Your task to perform on an android device: stop showing notifications on the lock screen Image 0: 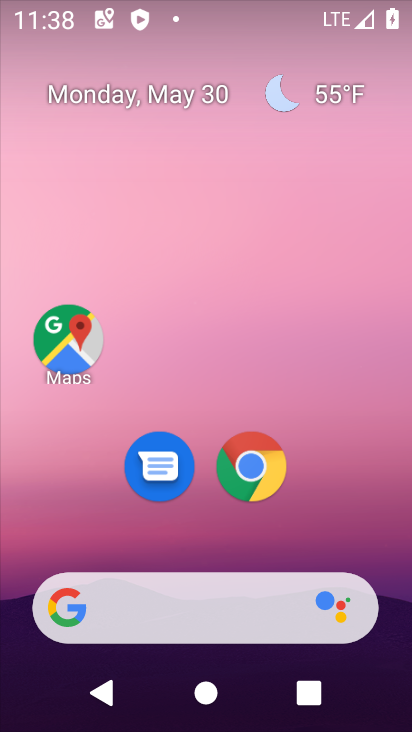
Step 0: press home button
Your task to perform on an android device: stop showing notifications on the lock screen Image 1: 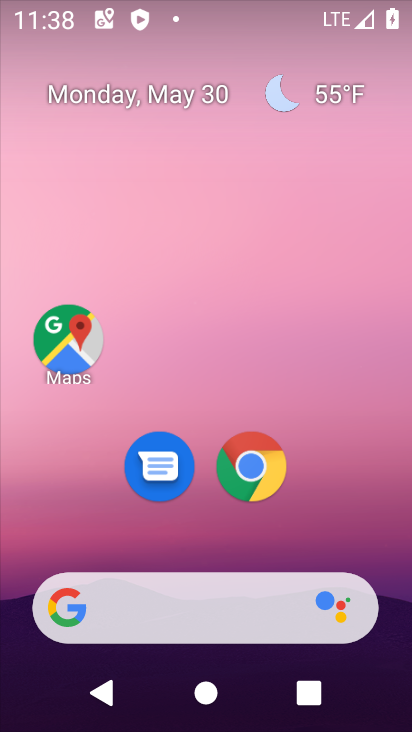
Step 1: drag from (360, 566) to (305, 103)
Your task to perform on an android device: stop showing notifications on the lock screen Image 2: 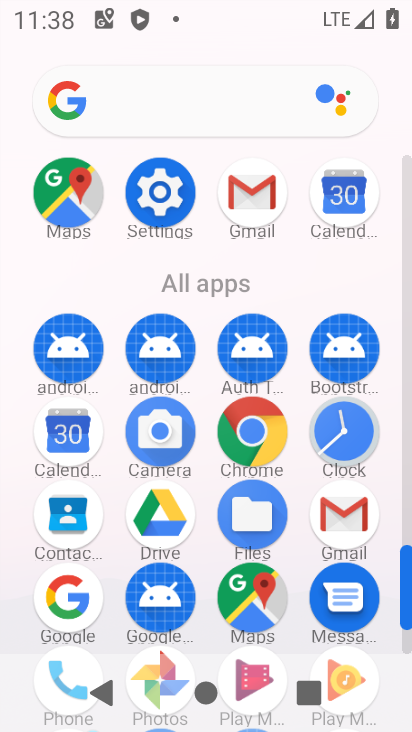
Step 2: click (173, 191)
Your task to perform on an android device: stop showing notifications on the lock screen Image 3: 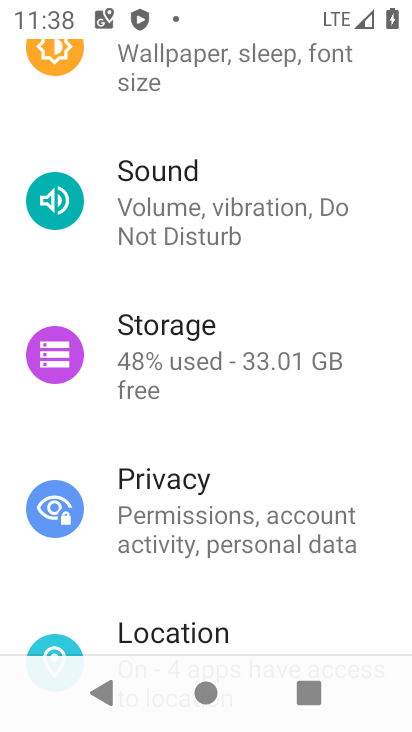
Step 3: drag from (218, 179) to (201, 692)
Your task to perform on an android device: stop showing notifications on the lock screen Image 4: 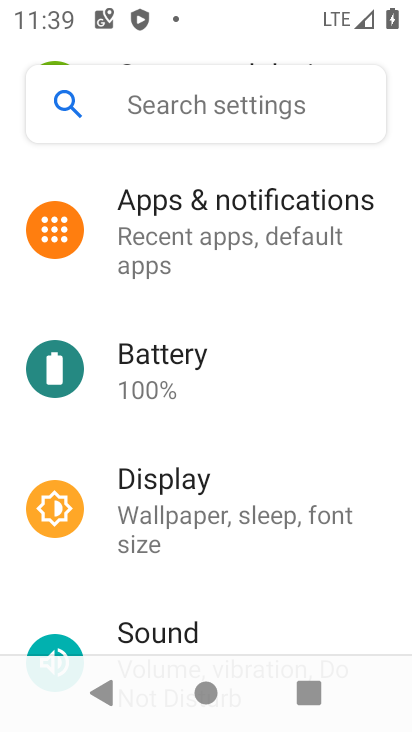
Step 4: click (208, 230)
Your task to perform on an android device: stop showing notifications on the lock screen Image 5: 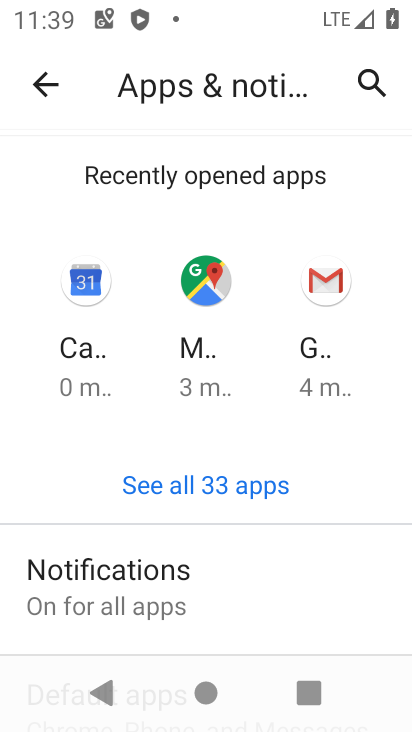
Step 5: drag from (189, 625) to (192, 353)
Your task to perform on an android device: stop showing notifications on the lock screen Image 6: 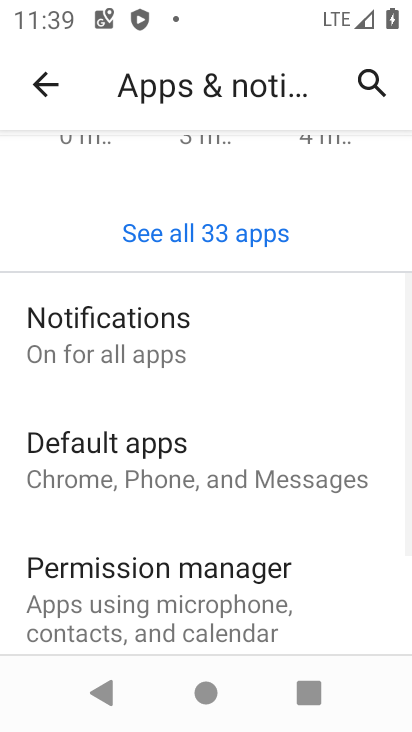
Step 6: click (158, 278)
Your task to perform on an android device: stop showing notifications on the lock screen Image 7: 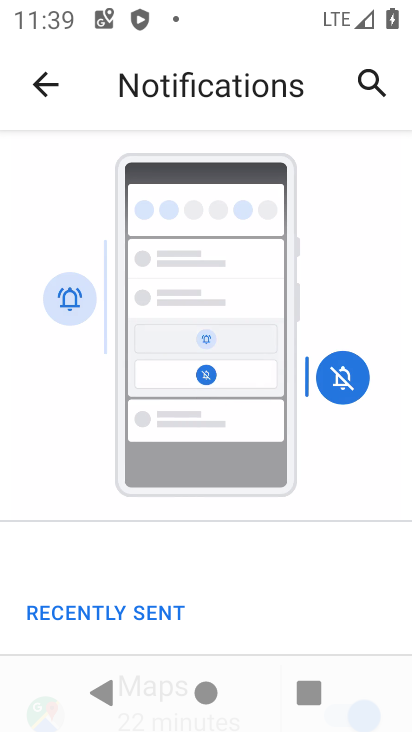
Step 7: drag from (174, 626) to (178, 288)
Your task to perform on an android device: stop showing notifications on the lock screen Image 8: 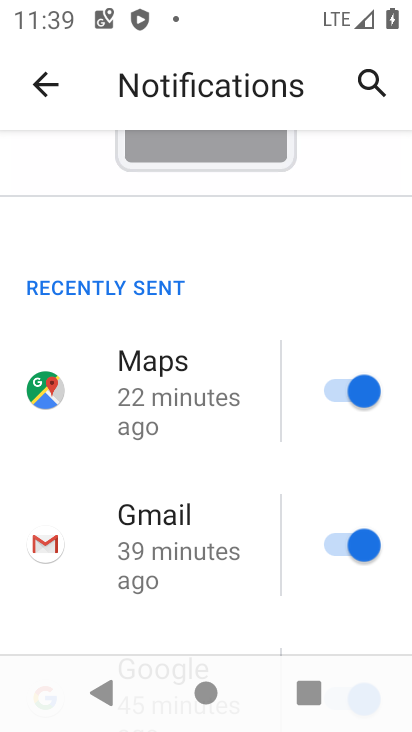
Step 8: drag from (194, 660) to (231, 230)
Your task to perform on an android device: stop showing notifications on the lock screen Image 9: 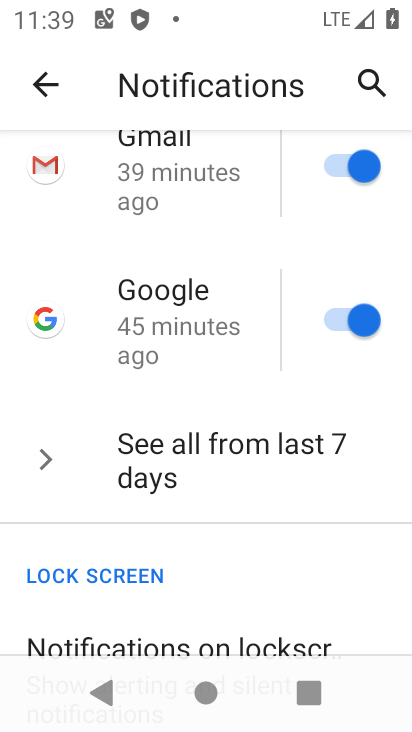
Step 9: drag from (216, 605) to (190, 365)
Your task to perform on an android device: stop showing notifications on the lock screen Image 10: 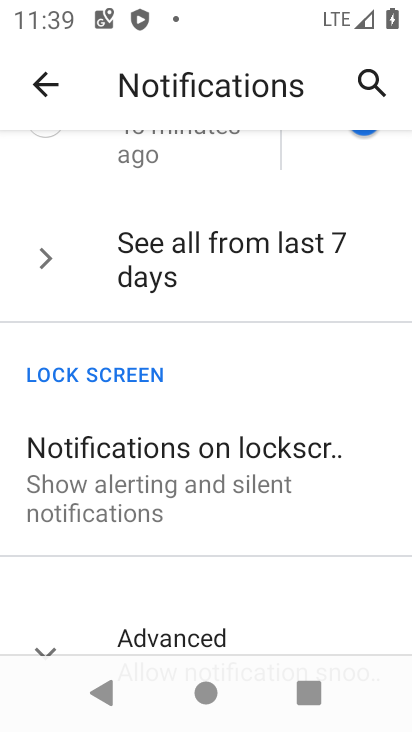
Step 10: click (207, 469)
Your task to perform on an android device: stop showing notifications on the lock screen Image 11: 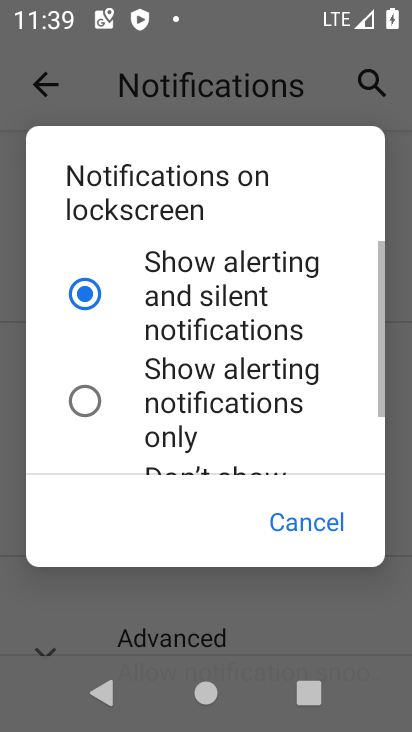
Step 11: drag from (201, 420) to (218, 208)
Your task to perform on an android device: stop showing notifications on the lock screen Image 12: 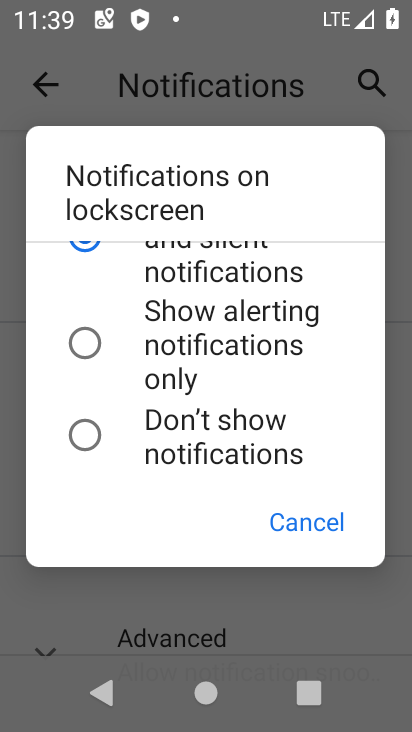
Step 12: click (186, 434)
Your task to perform on an android device: stop showing notifications on the lock screen Image 13: 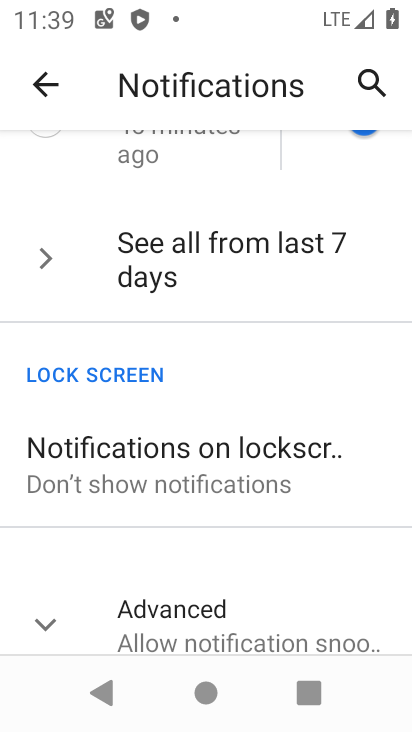
Step 13: task complete